Your task to perform on an android device: turn on translation in the chrome app Image 0: 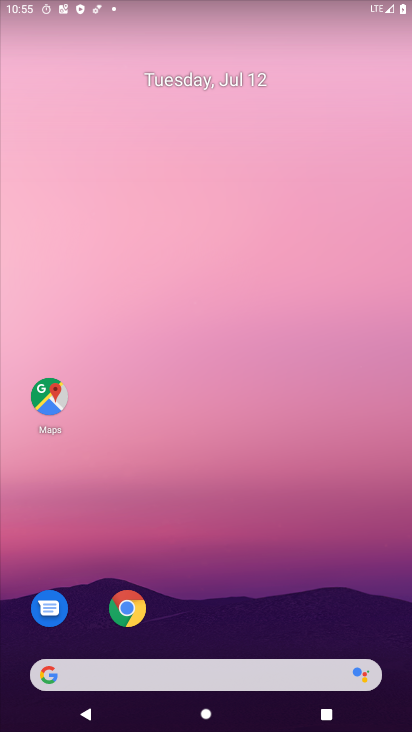
Step 0: click (127, 608)
Your task to perform on an android device: turn on translation in the chrome app Image 1: 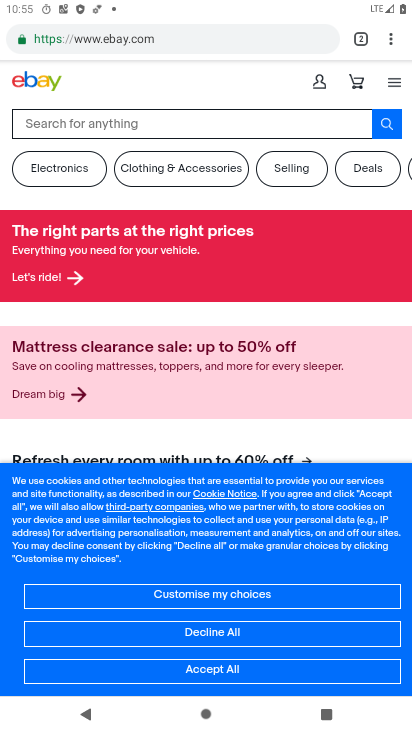
Step 1: click (393, 34)
Your task to perform on an android device: turn on translation in the chrome app Image 2: 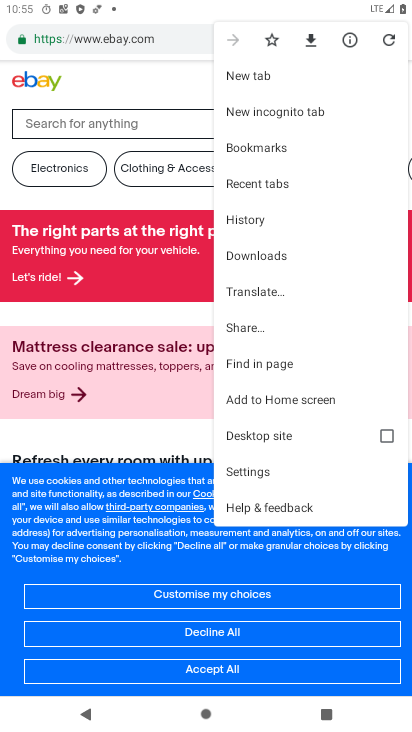
Step 2: click (291, 470)
Your task to perform on an android device: turn on translation in the chrome app Image 3: 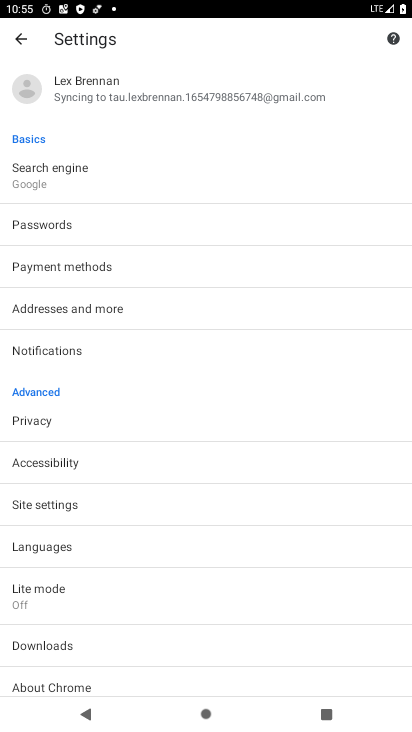
Step 3: click (101, 550)
Your task to perform on an android device: turn on translation in the chrome app Image 4: 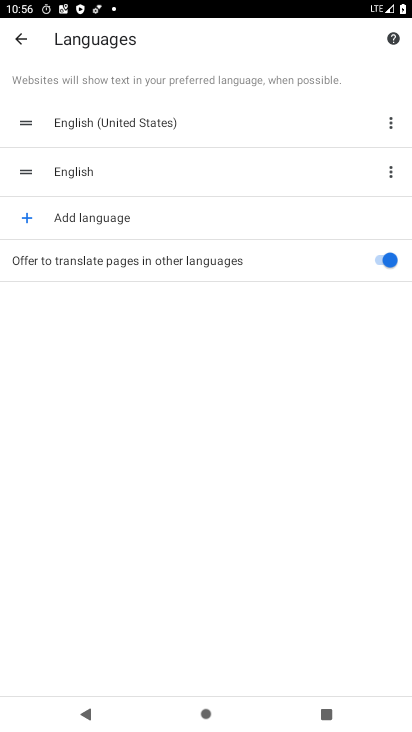
Step 4: task complete